Your task to perform on an android device: Show me recent news Image 0: 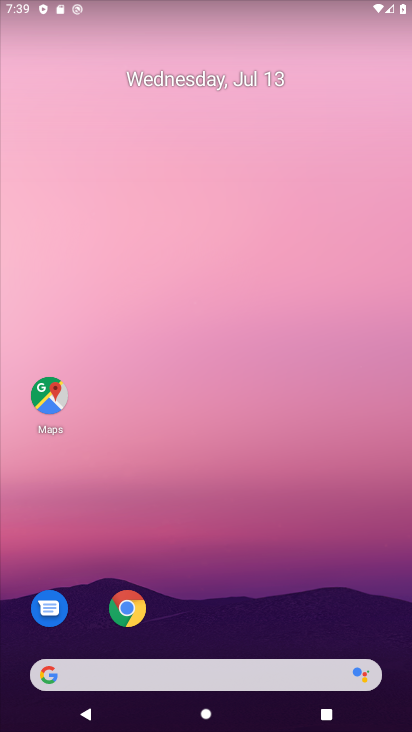
Step 0: click (198, 673)
Your task to perform on an android device: Show me recent news Image 1: 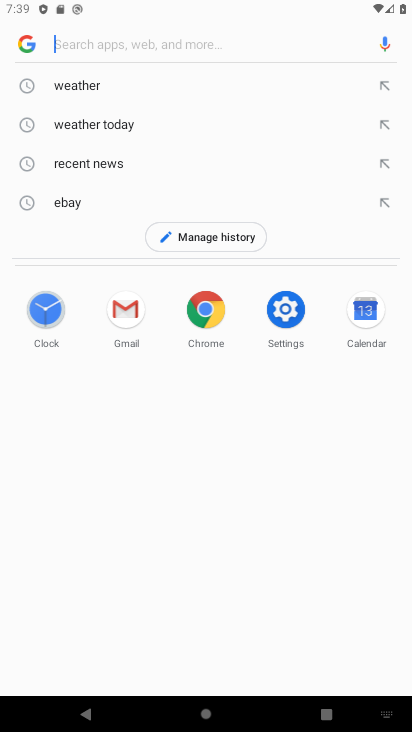
Step 1: click (91, 162)
Your task to perform on an android device: Show me recent news Image 2: 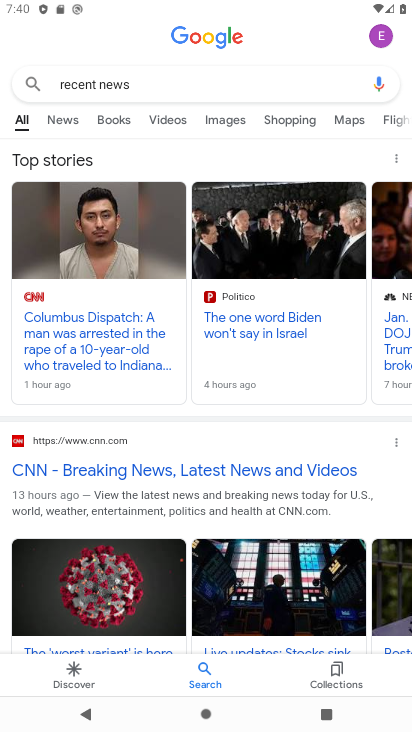
Step 2: click (70, 108)
Your task to perform on an android device: Show me recent news Image 3: 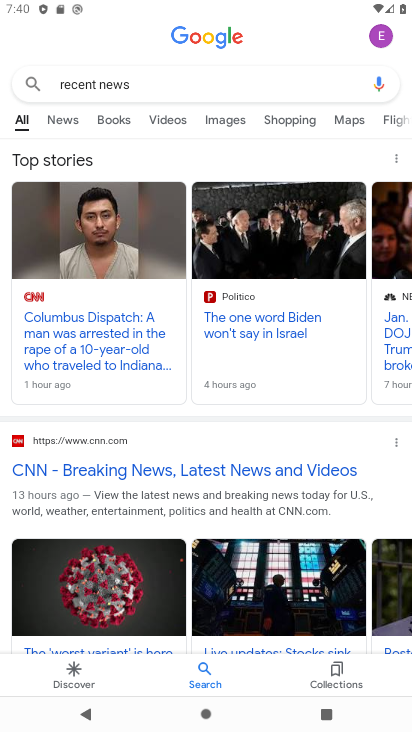
Step 3: click (69, 116)
Your task to perform on an android device: Show me recent news Image 4: 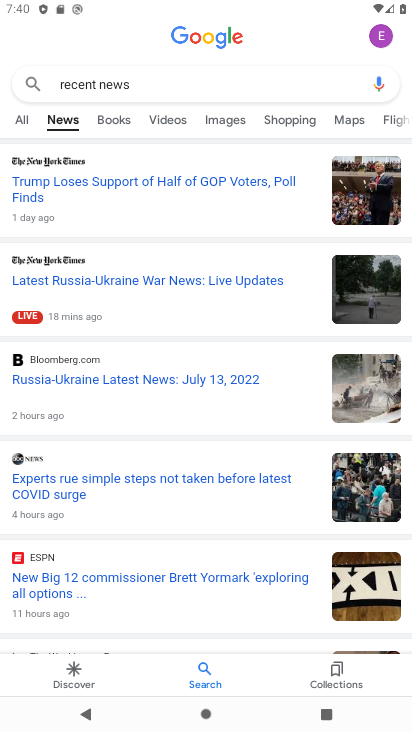
Step 4: task complete